Your task to perform on an android device: Go to sound settings Image 0: 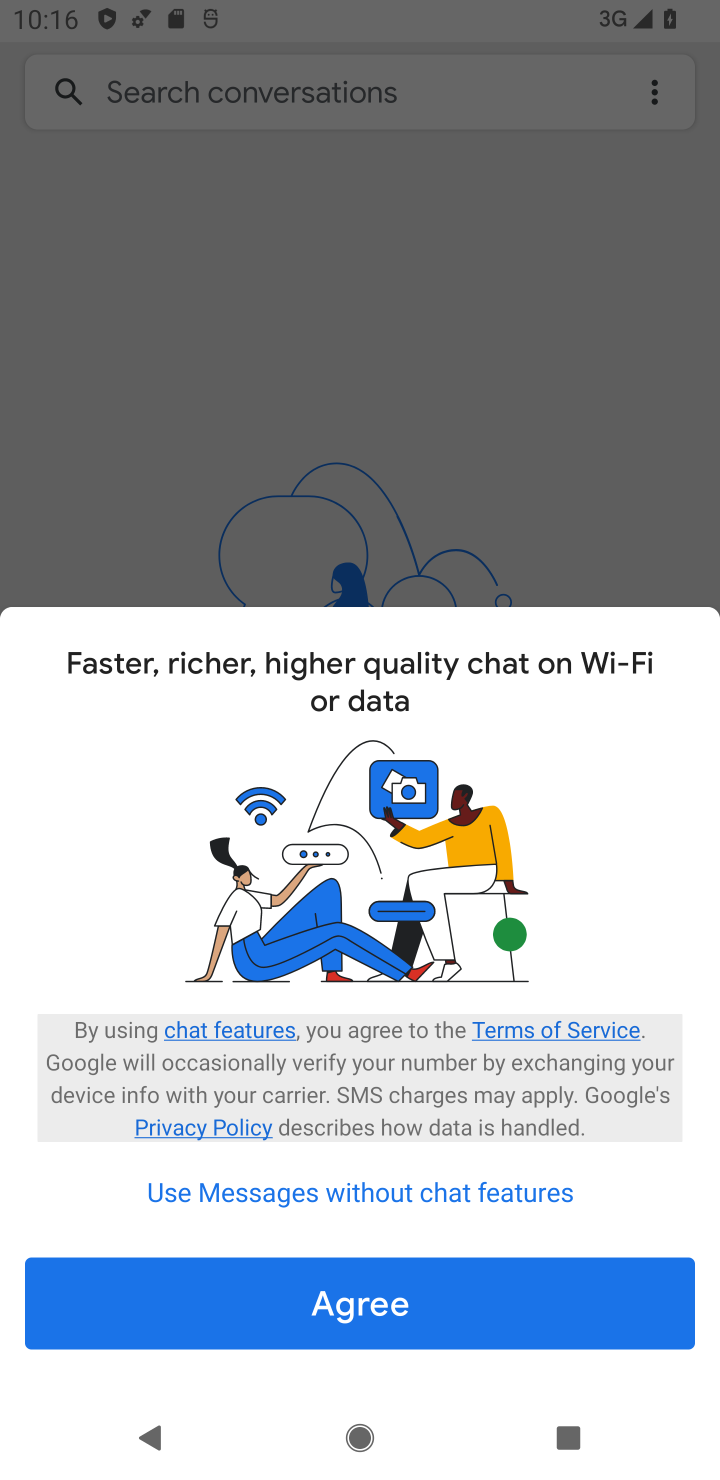
Step 0: click (484, 1312)
Your task to perform on an android device: Go to sound settings Image 1: 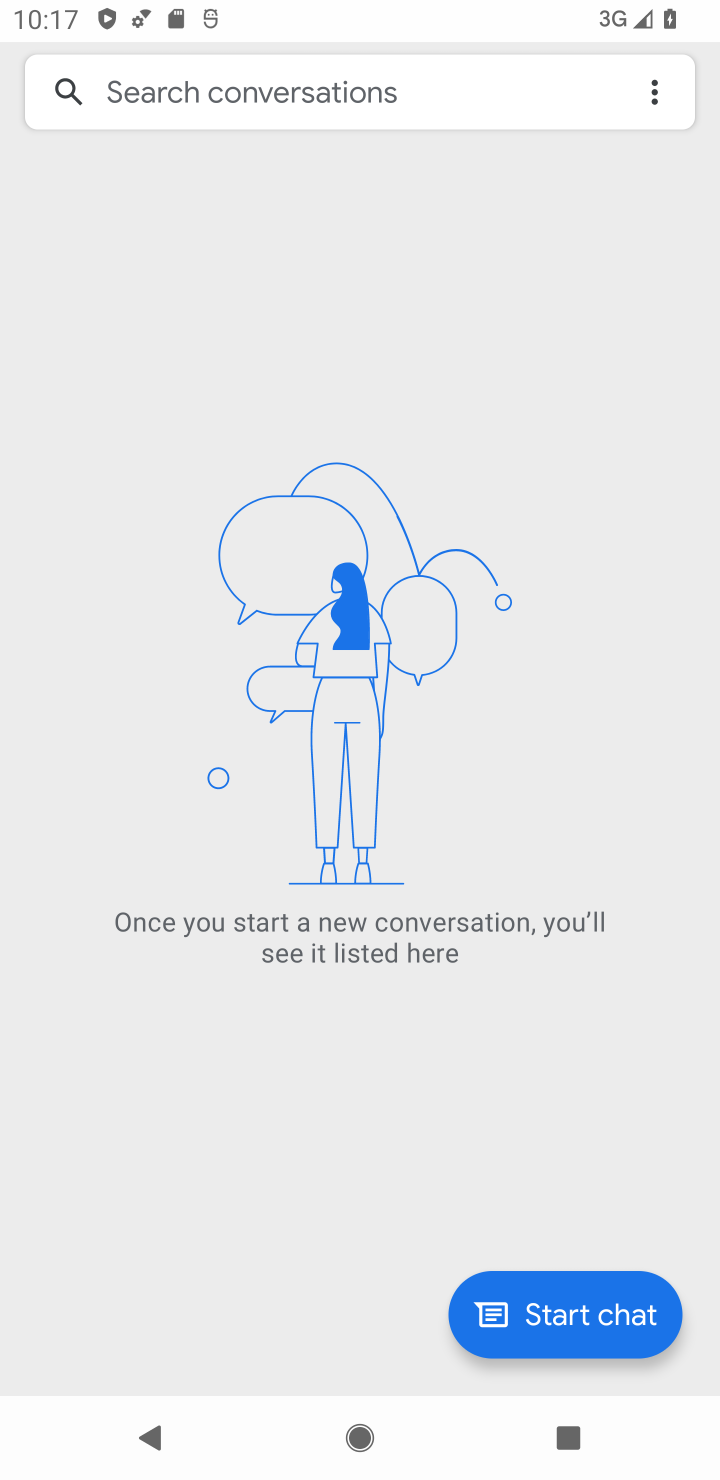
Step 1: press home button
Your task to perform on an android device: Go to sound settings Image 2: 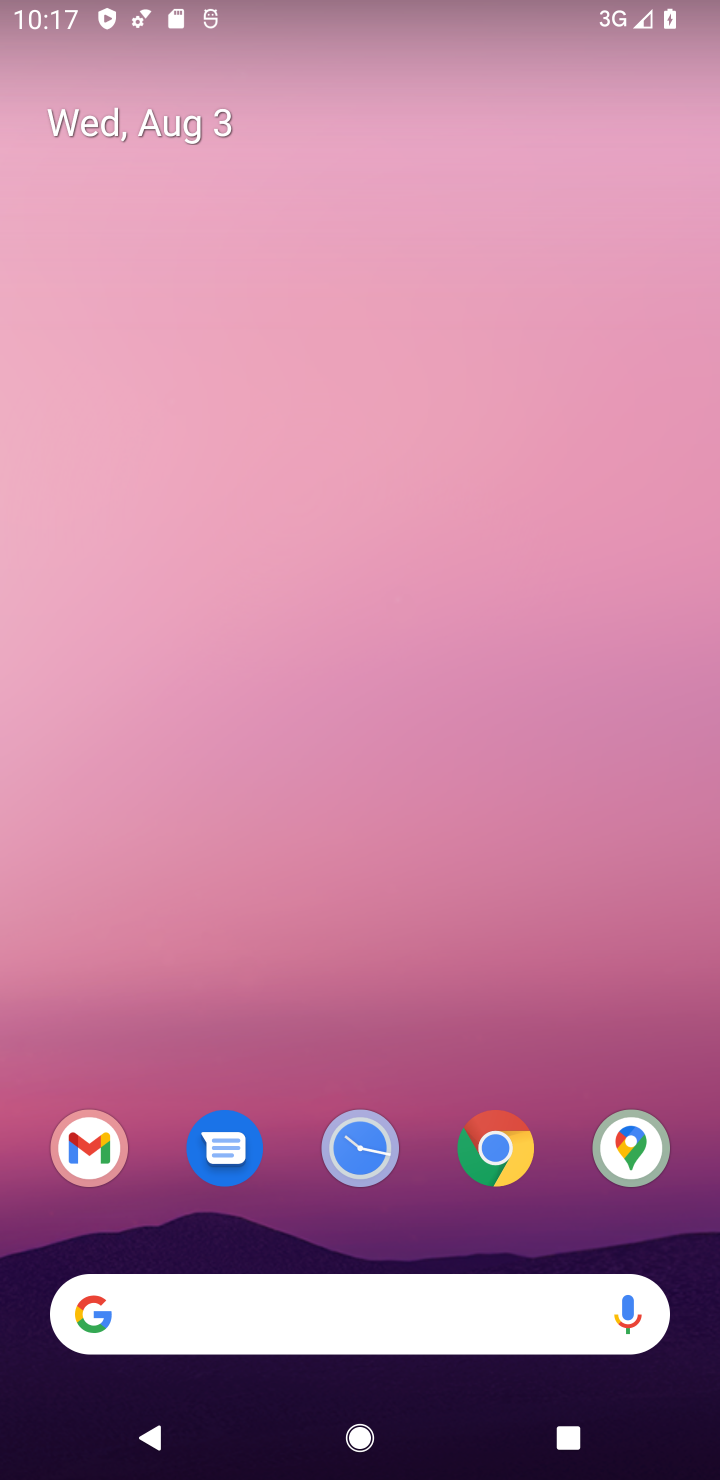
Step 2: drag from (438, 932) to (415, 518)
Your task to perform on an android device: Go to sound settings Image 3: 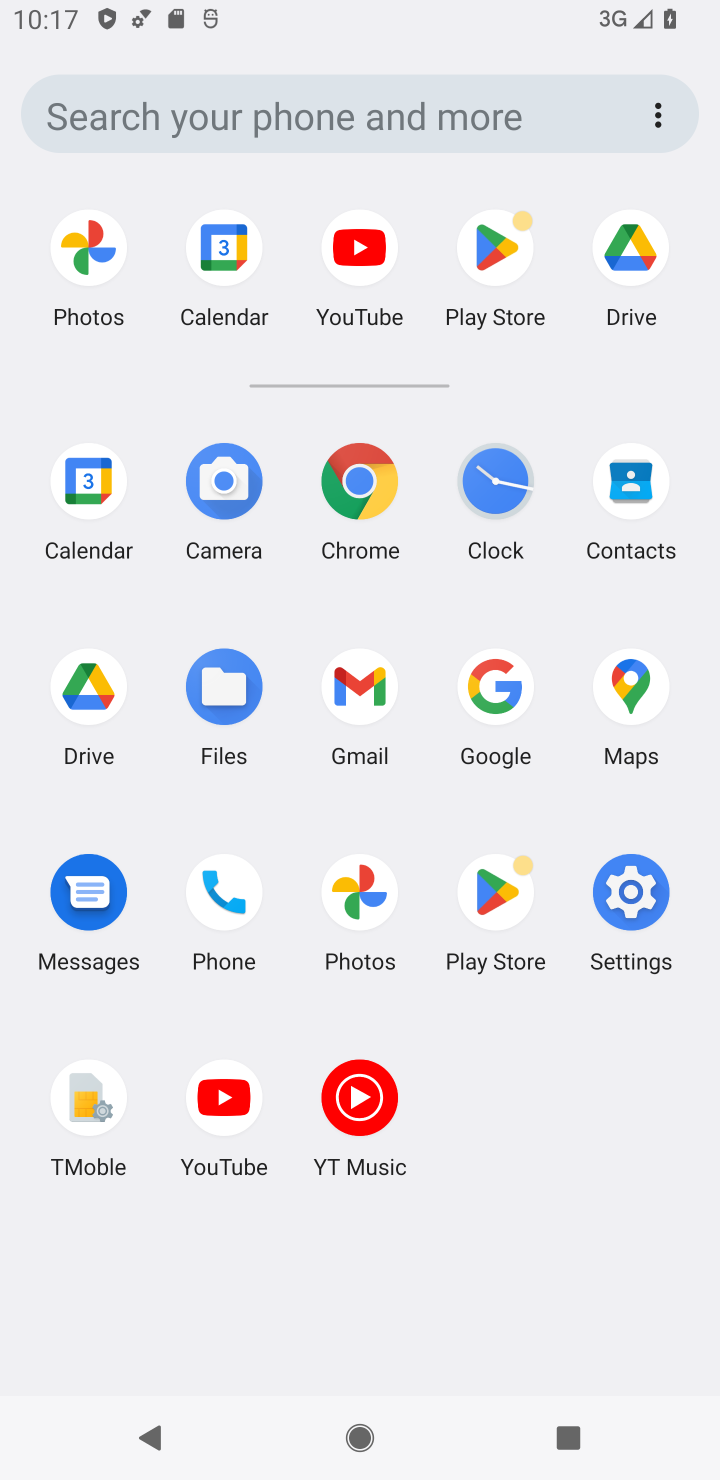
Step 3: click (644, 885)
Your task to perform on an android device: Go to sound settings Image 4: 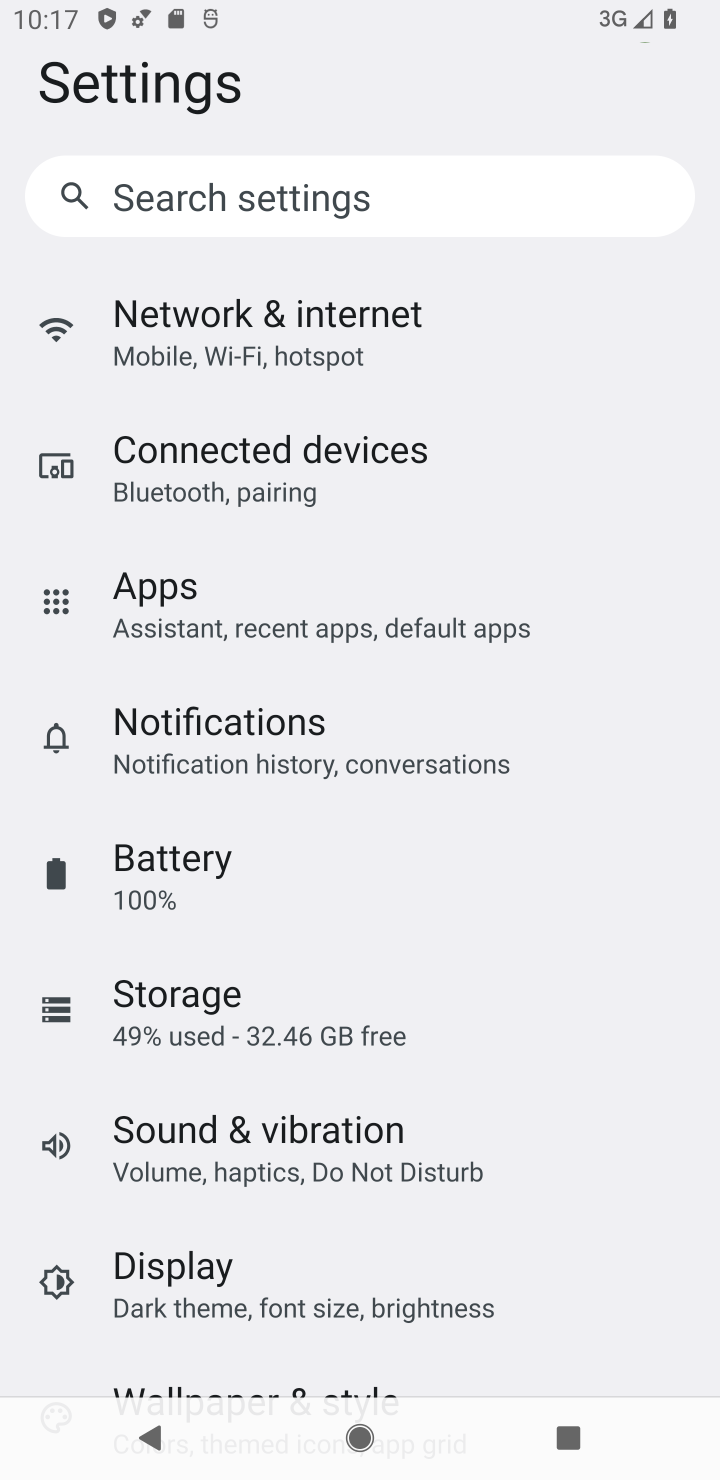
Step 4: click (217, 1157)
Your task to perform on an android device: Go to sound settings Image 5: 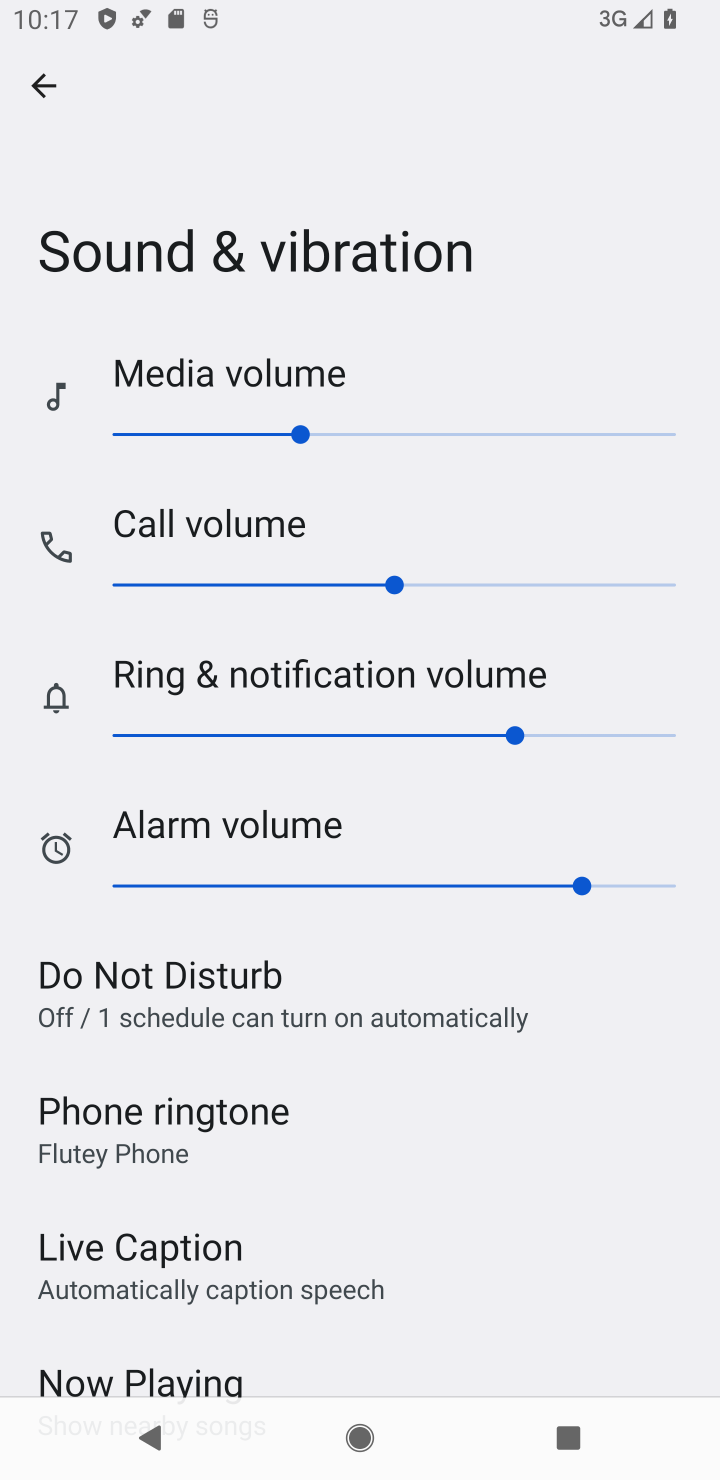
Step 5: task complete